Your task to perform on an android device: Open wifi settings Image 0: 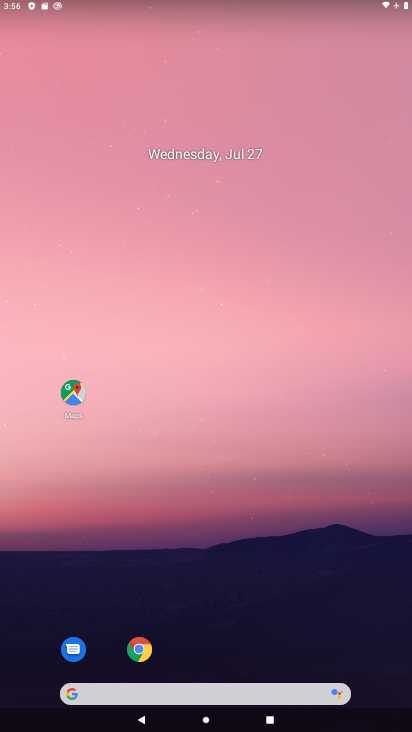
Step 0: drag from (265, 616) to (280, 129)
Your task to perform on an android device: Open wifi settings Image 1: 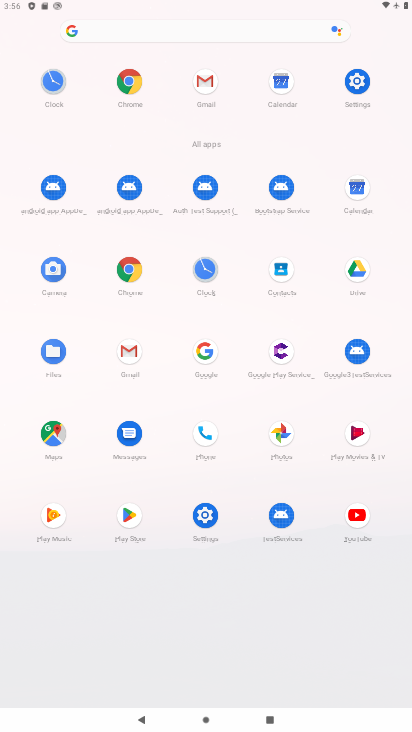
Step 1: click (350, 68)
Your task to perform on an android device: Open wifi settings Image 2: 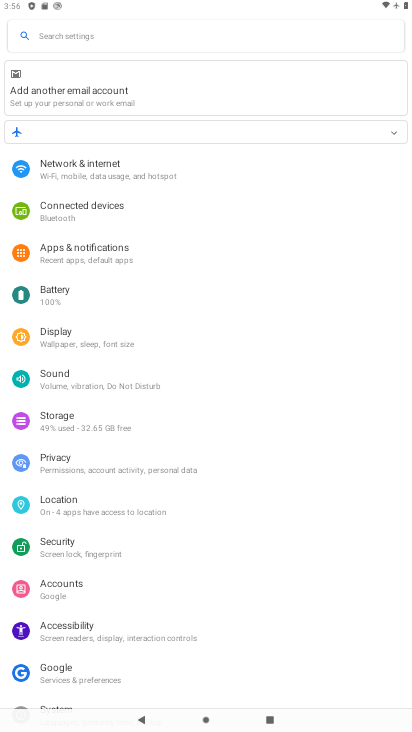
Step 2: click (265, 159)
Your task to perform on an android device: Open wifi settings Image 3: 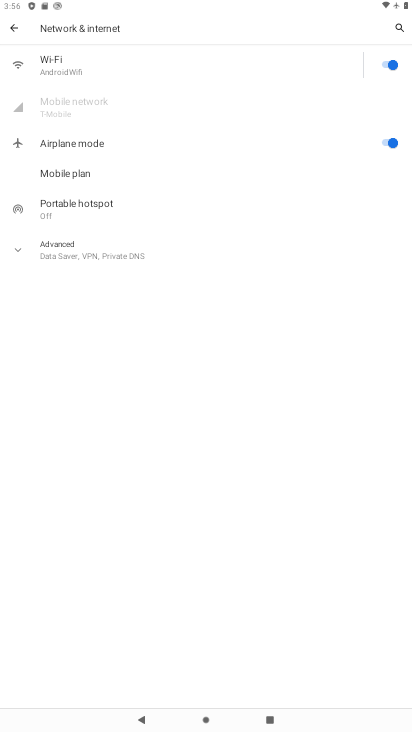
Step 3: click (281, 60)
Your task to perform on an android device: Open wifi settings Image 4: 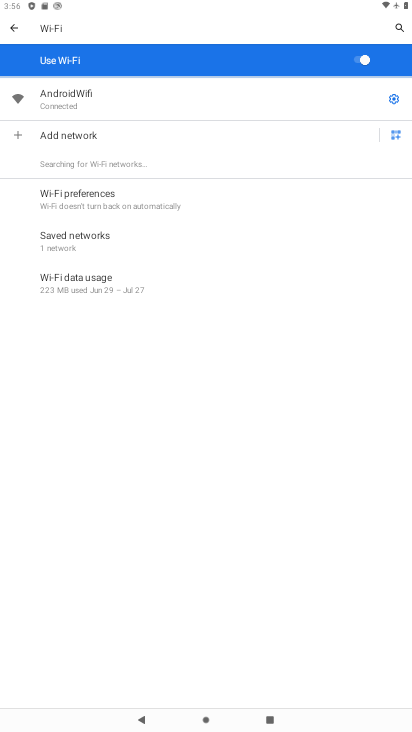
Step 4: task complete